Your task to perform on an android device: clear all cookies in the chrome app Image 0: 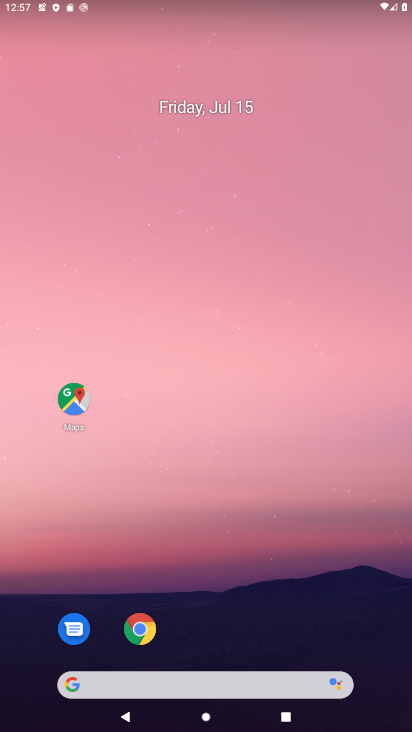
Step 0: drag from (261, 648) to (197, 11)
Your task to perform on an android device: clear all cookies in the chrome app Image 1: 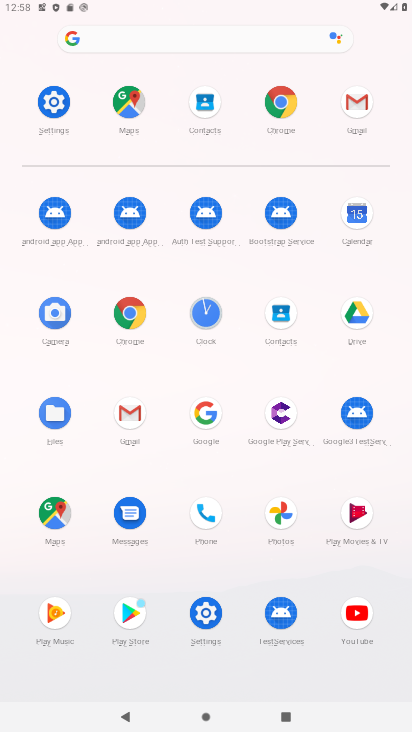
Step 1: click (134, 326)
Your task to perform on an android device: clear all cookies in the chrome app Image 2: 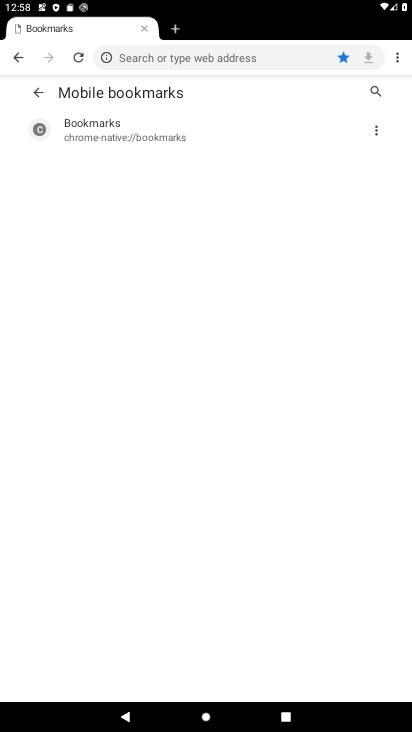
Step 2: drag from (400, 61) to (282, 212)
Your task to perform on an android device: clear all cookies in the chrome app Image 3: 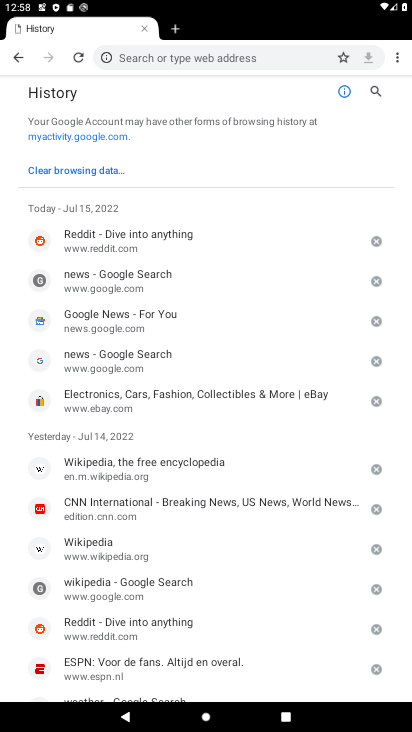
Step 3: click (86, 128)
Your task to perform on an android device: clear all cookies in the chrome app Image 4: 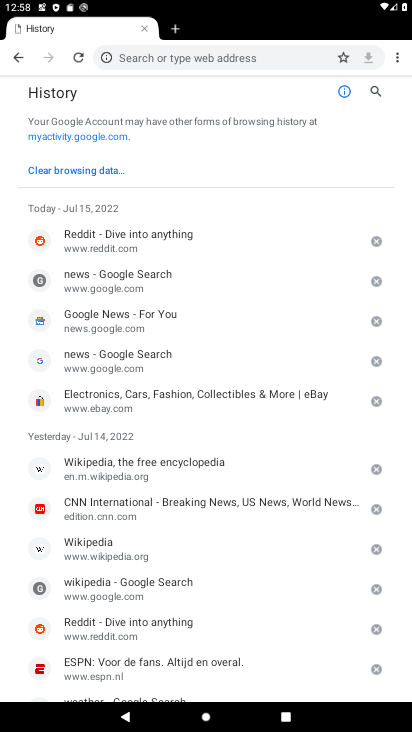
Step 4: click (86, 165)
Your task to perform on an android device: clear all cookies in the chrome app Image 5: 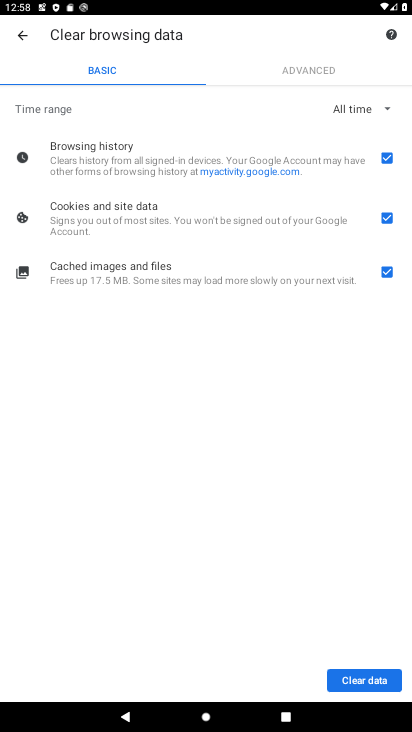
Step 5: click (352, 688)
Your task to perform on an android device: clear all cookies in the chrome app Image 6: 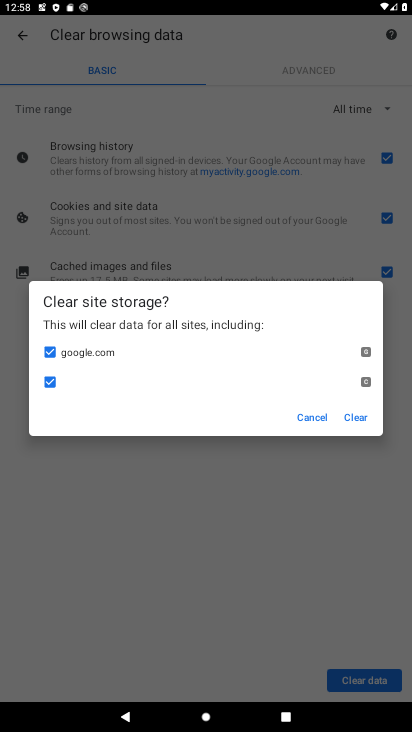
Step 6: click (363, 417)
Your task to perform on an android device: clear all cookies in the chrome app Image 7: 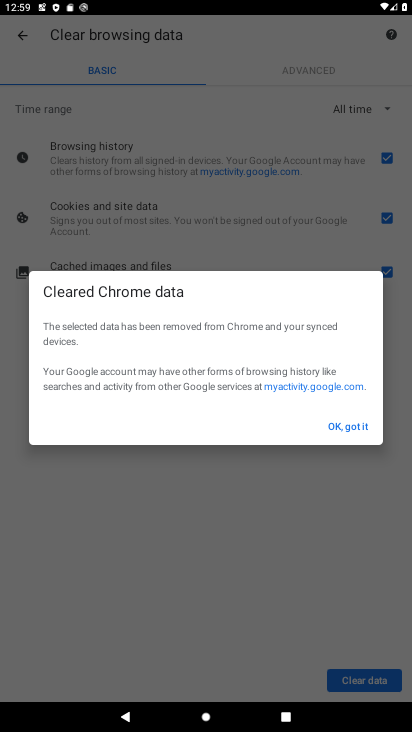
Step 7: task complete